Your task to perform on an android device: all mails in gmail Image 0: 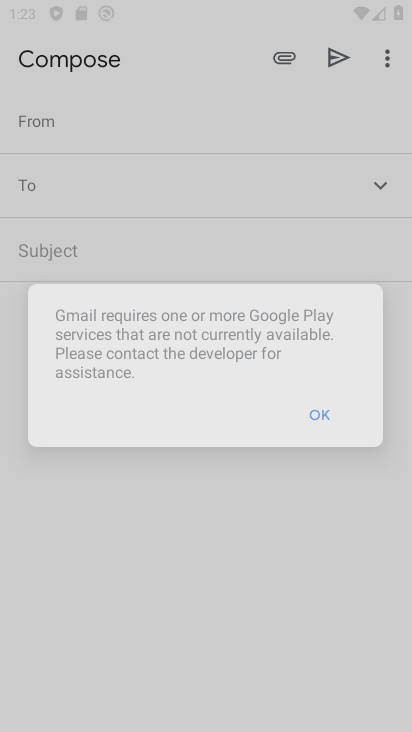
Step 0: drag from (199, 650) to (124, 19)
Your task to perform on an android device: all mails in gmail Image 1: 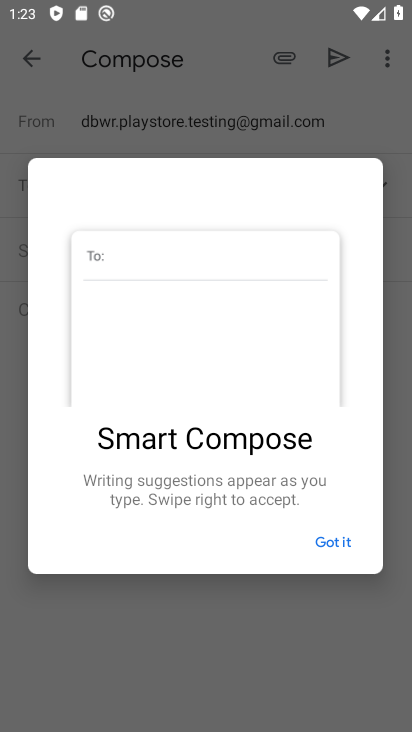
Step 1: press back button
Your task to perform on an android device: all mails in gmail Image 2: 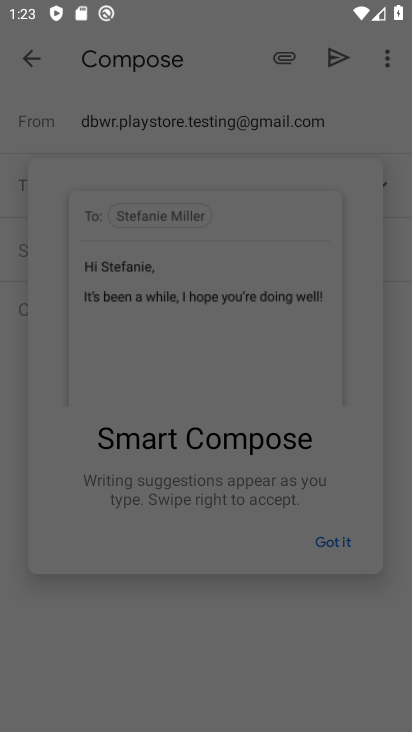
Step 2: click (313, 542)
Your task to perform on an android device: all mails in gmail Image 3: 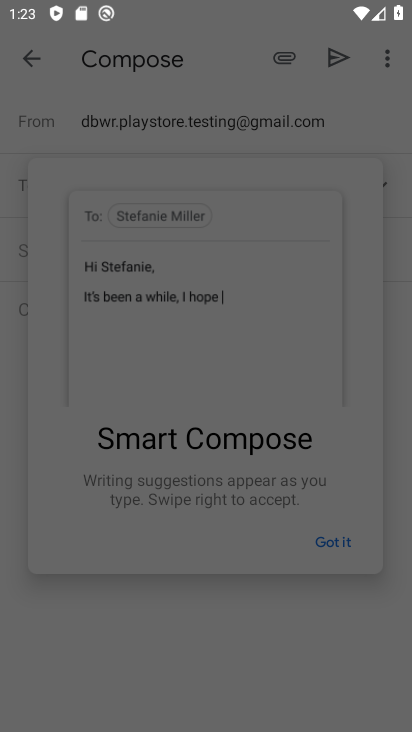
Step 3: click (36, 56)
Your task to perform on an android device: all mails in gmail Image 4: 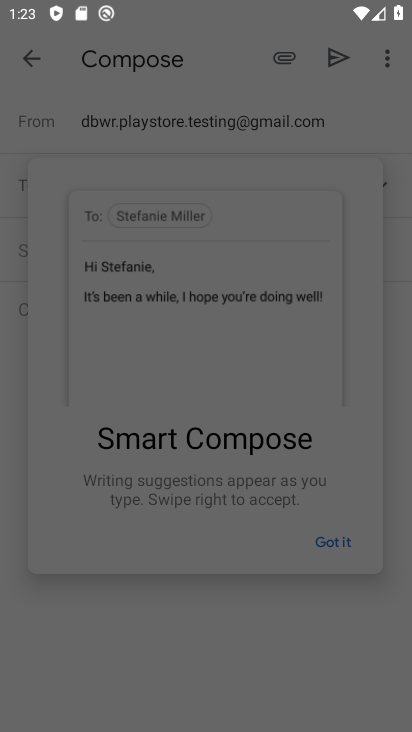
Step 4: press back button
Your task to perform on an android device: all mails in gmail Image 5: 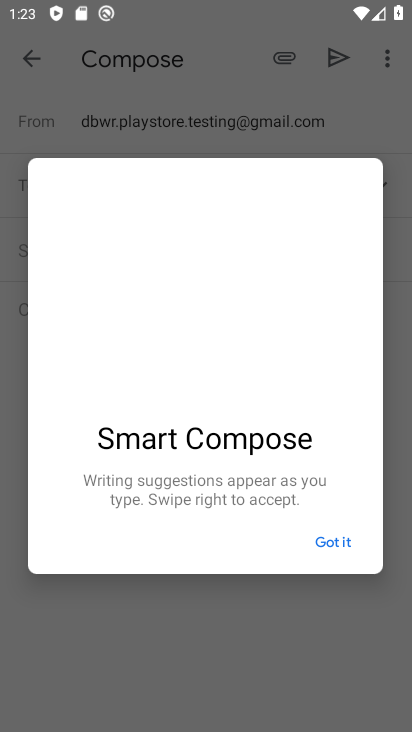
Step 5: press back button
Your task to perform on an android device: all mails in gmail Image 6: 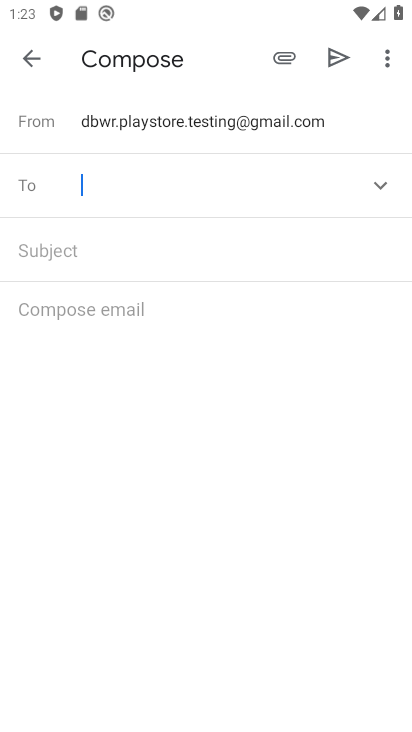
Step 6: click (334, 541)
Your task to perform on an android device: all mails in gmail Image 7: 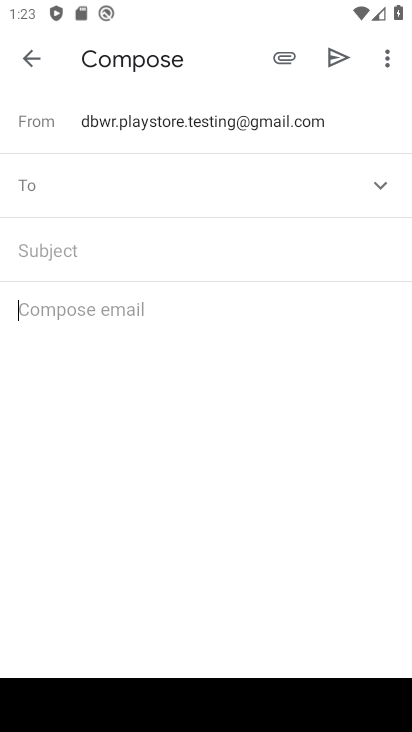
Step 7: click (9, 60)
Your task to perform on an android device: all mails in gmail Image 8: 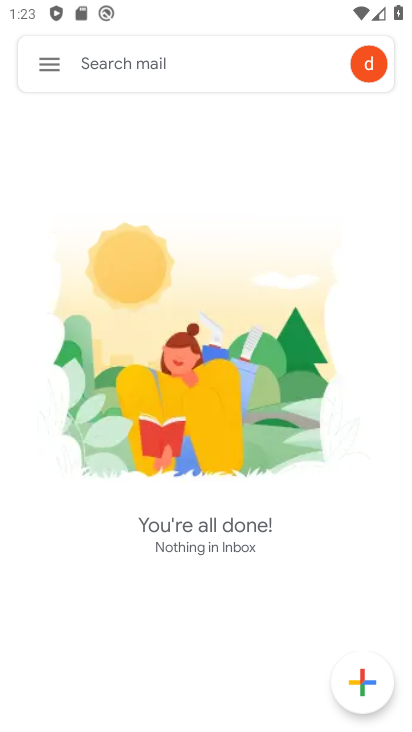
Step 8: click (45, 64)
Your task to perform on an android device: all mails in gmail Image 9: 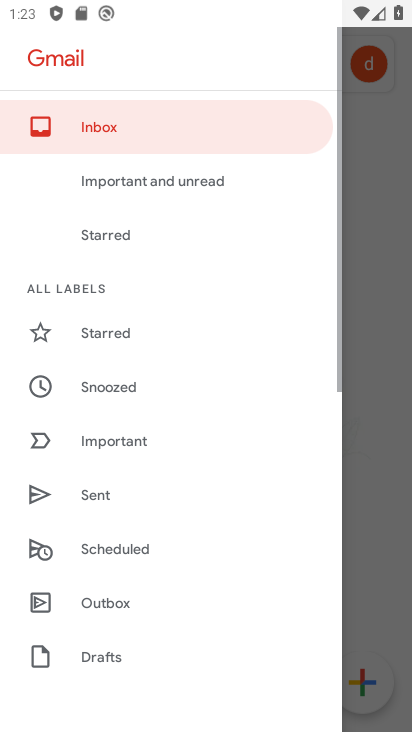
Step 9: drag from (148, 503) to (154, 134)
Your task to perform on an android device: all mails in gmail Image 10: 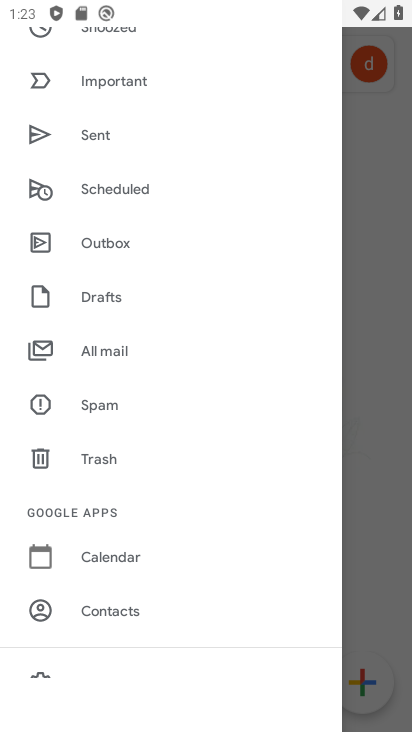
Step 10: click (107, 360)
Your task to perform on an android device: all mails in gmail Image 11: 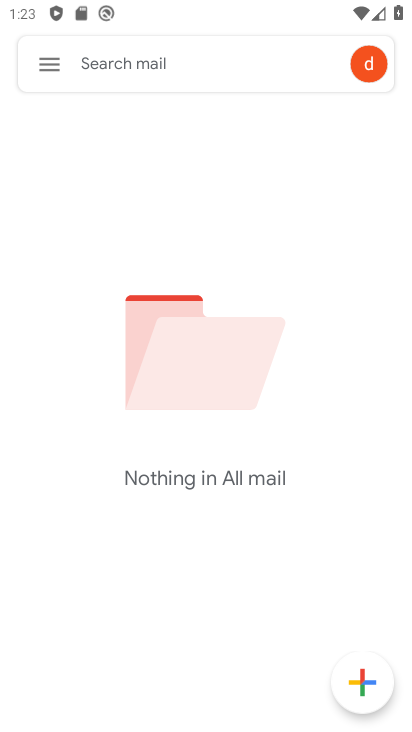
Step 11: task complete